Your task to perform on an android device: Open eBay Image 0: 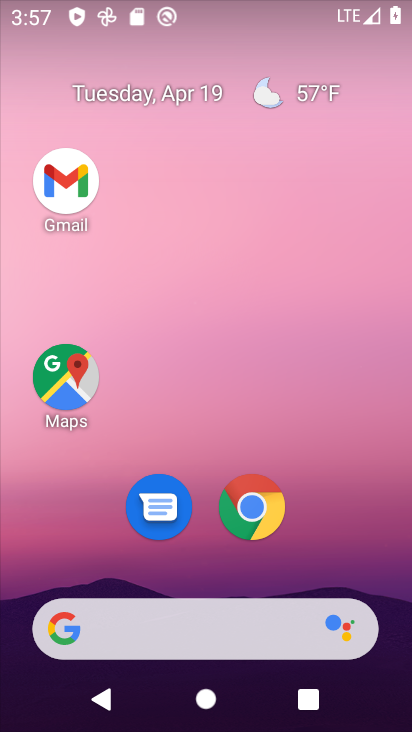
Step 0: click (259, 515)
Your task to perform on an android device: Open eBay Image 1: 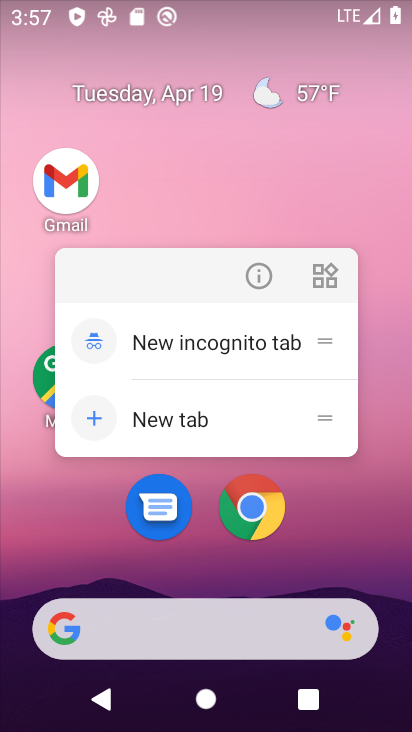
Step 1: click (243, 508)
Your task to perform on an android device: Open eBay Image 2: 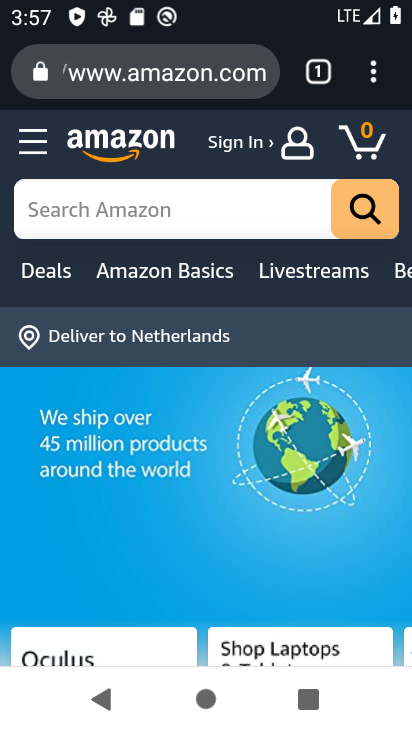
Step 2: click (317, 66)
Your task to perform on an android device: Open eBay Image 3: 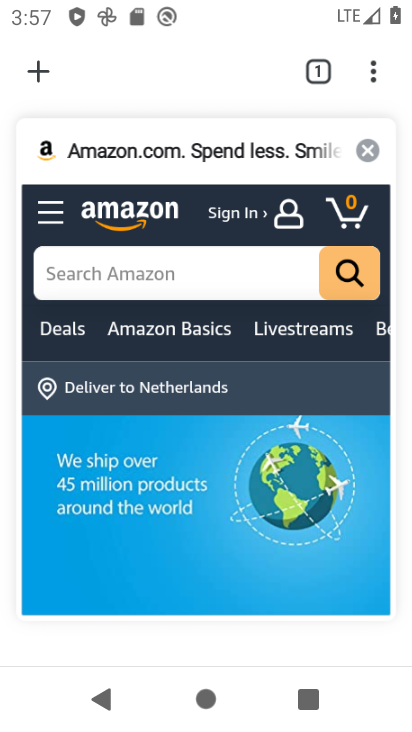
Step 3: click (35, 73)
Your task to perform on an android device: Open eBay Image 4: 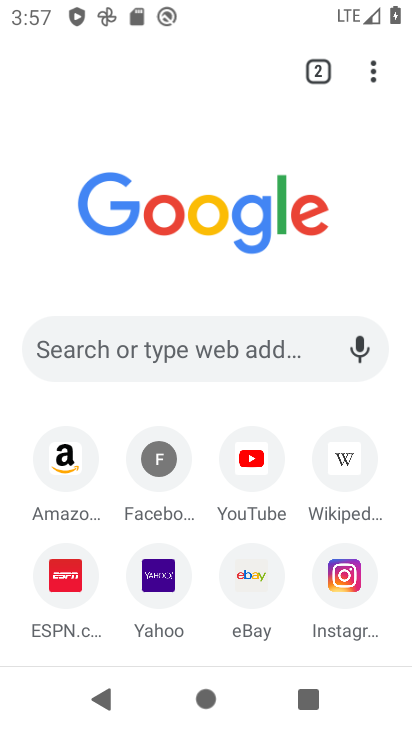
Step 4: click (196, 345)
Your task to perform on an android device: Open eBay Image 5: 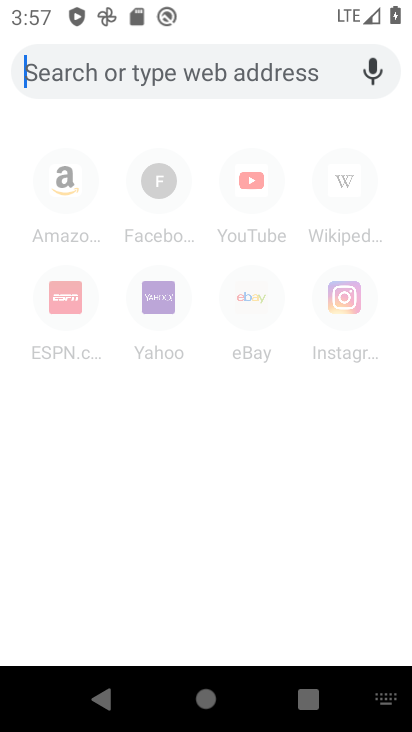
Step 5: type "ebay"
Your task to perform on an android device: Open eBay Image 6: 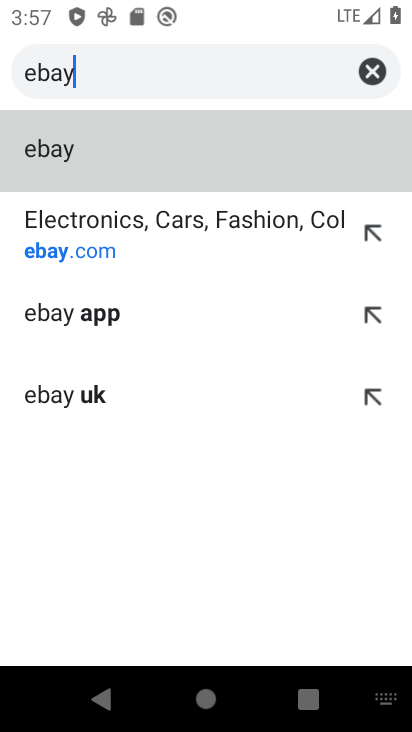
Step 6: task complete